Your task to perform on an android device: Search for a 100 ft extension cord Image 0: 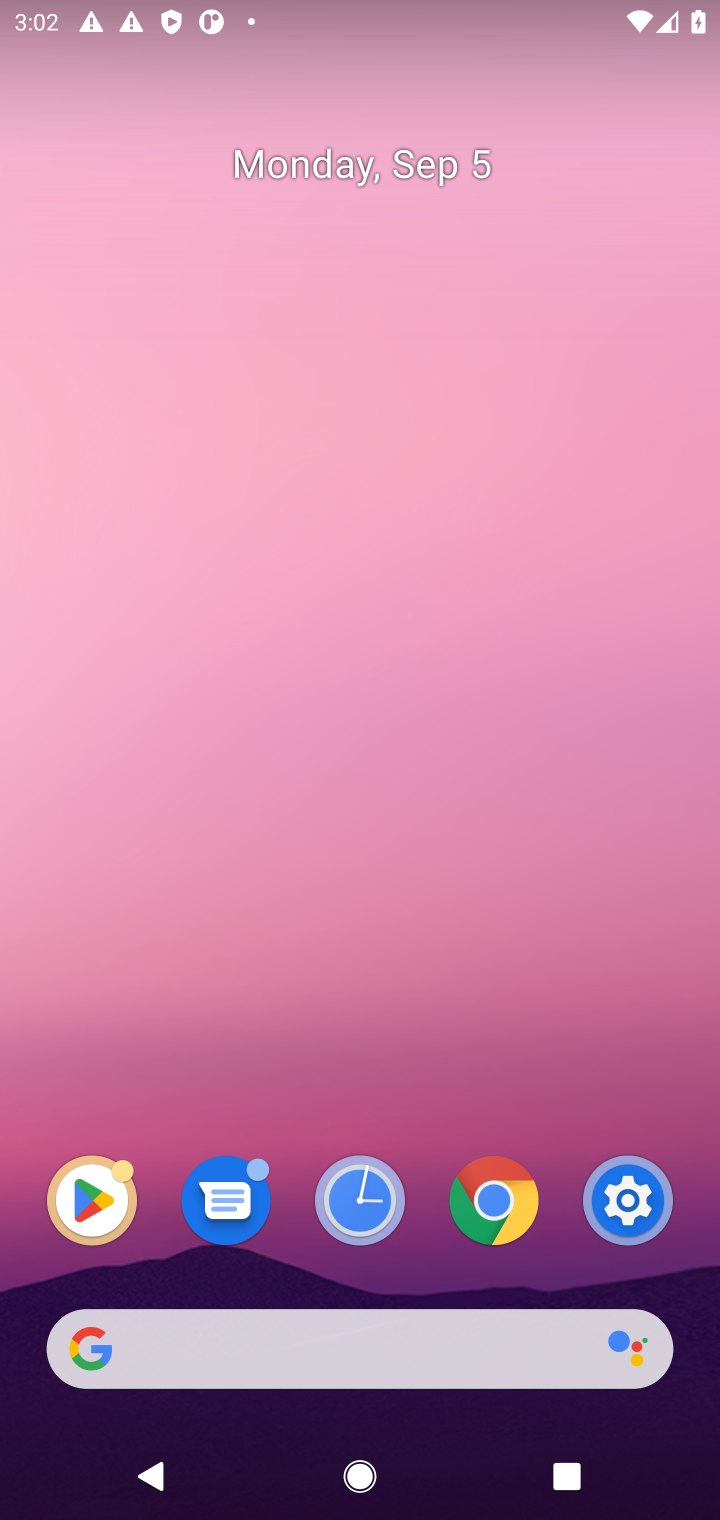
Step 0: click (330, 1347)
Your task to perform on an android device: Search for a 100 ft extension cord Image 1: 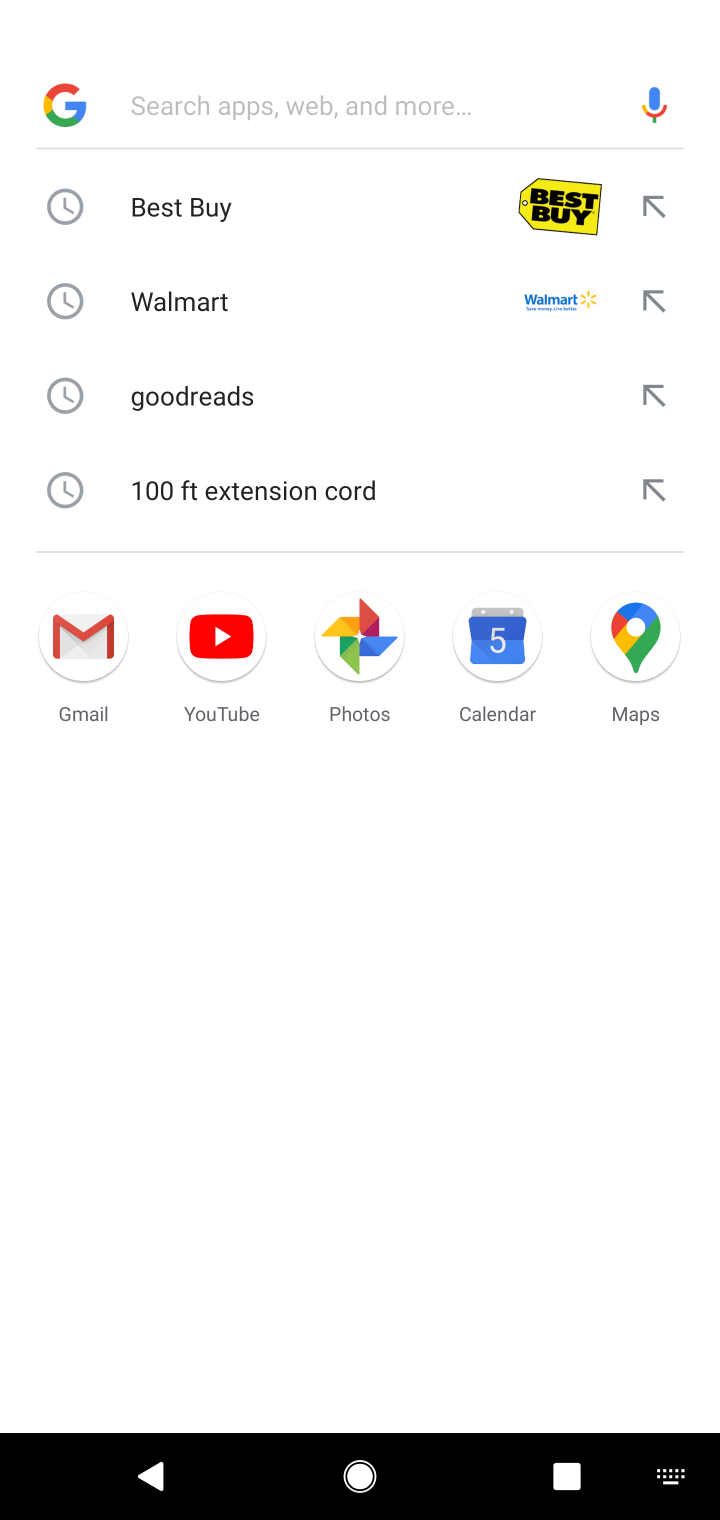
Step 1: type "100 ft extension cord"
Your task to perform on an android device: Search for a 100 ft extension cord Image 2: 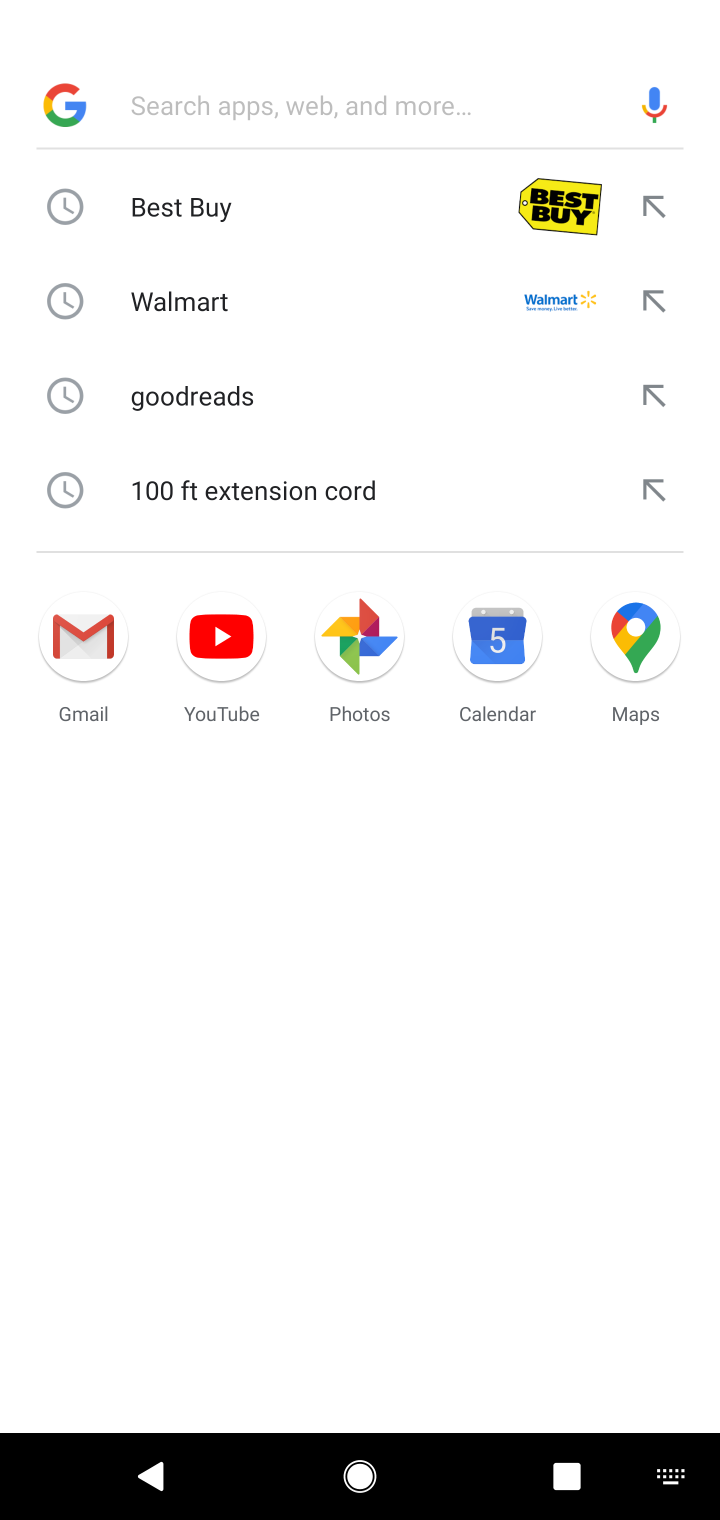
Step 2: click (148, 98)
Your task to perform on an android device: Search for a 100 ft extension cord Image 3: 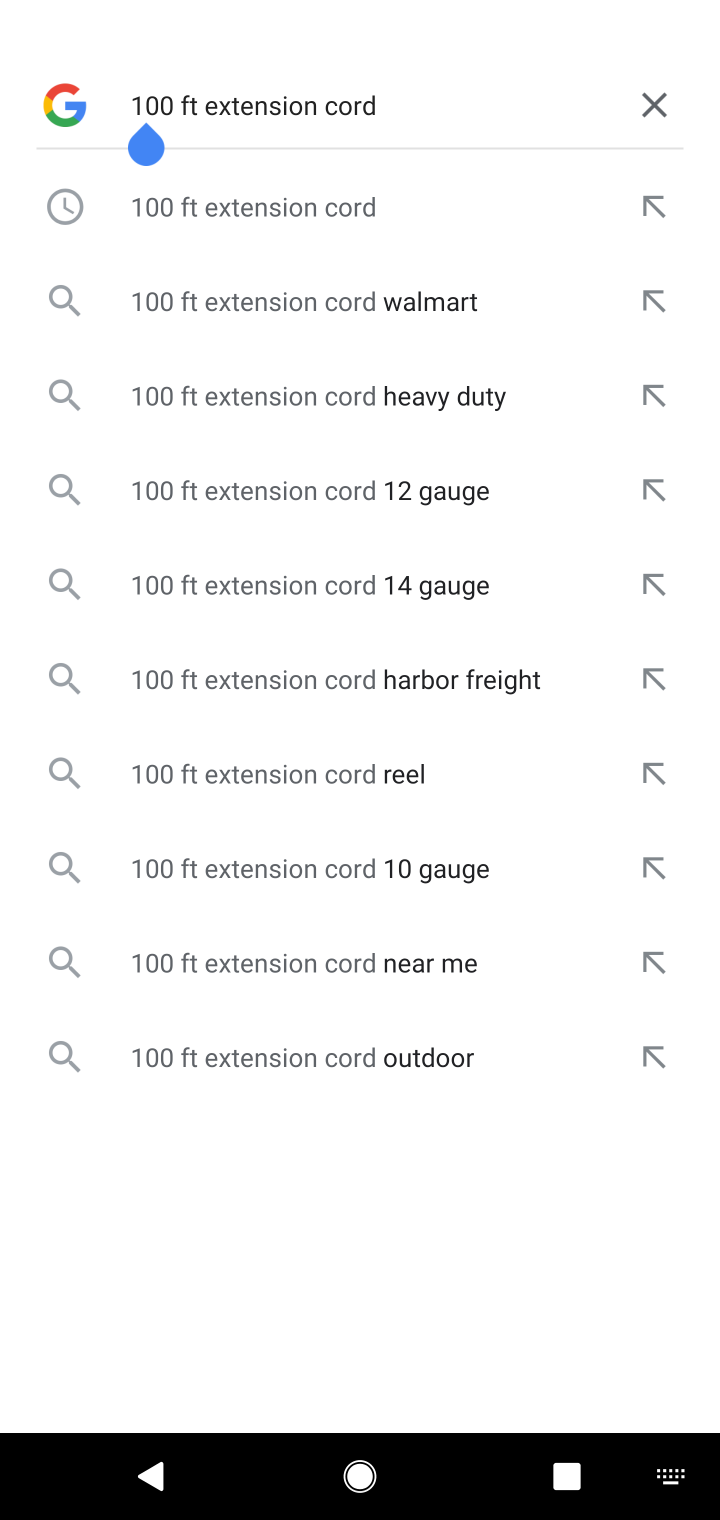
Step 3: click (321, 196)
Your task to perform on an android device: Search for a 100 ft extension cord Image 4: 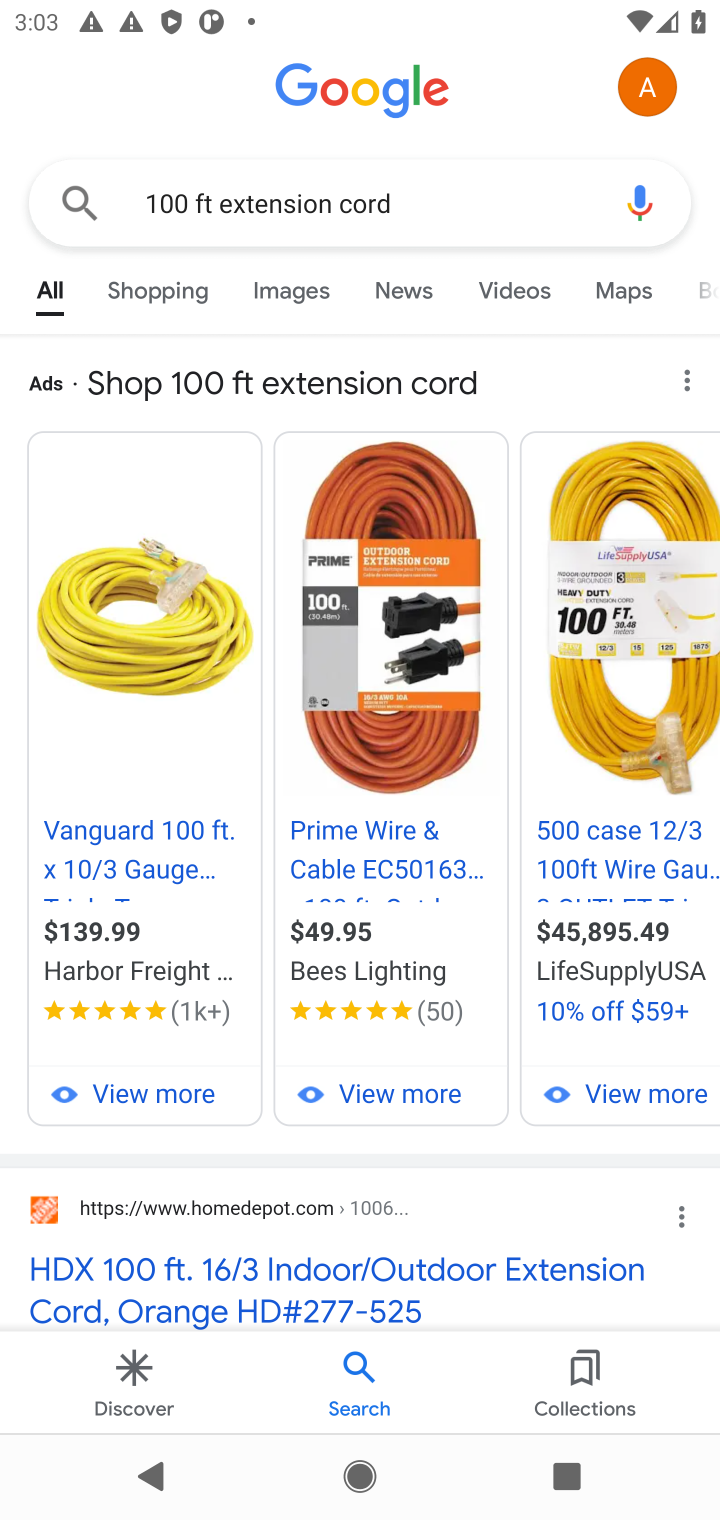
Step 4: task complete